Your task to perform on an android device: turn pop-ups on in chrome Image 0: 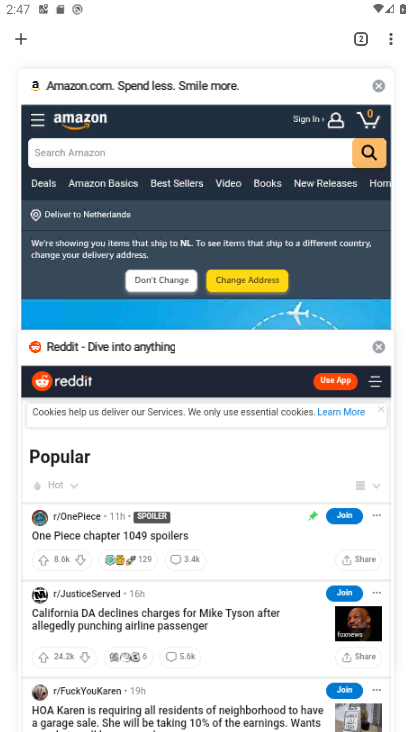
Step 0: press home button
Your task to perform on an android device: turn pop-ups on in chrome Image 1: 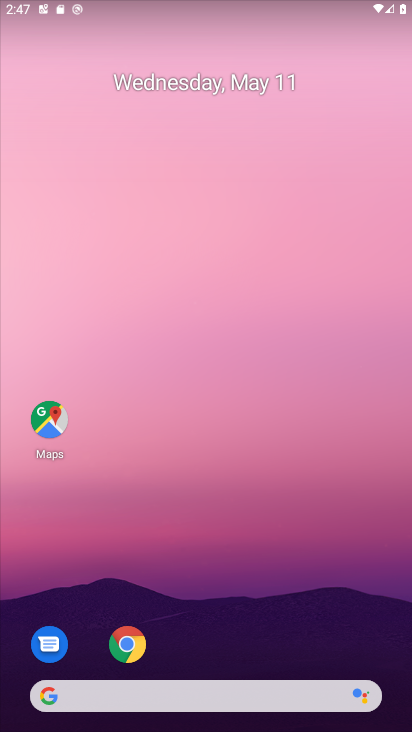
Step 1: click (130, 659)
Your task to perform on an android device: turn pop-ups on in chrome Image 2: 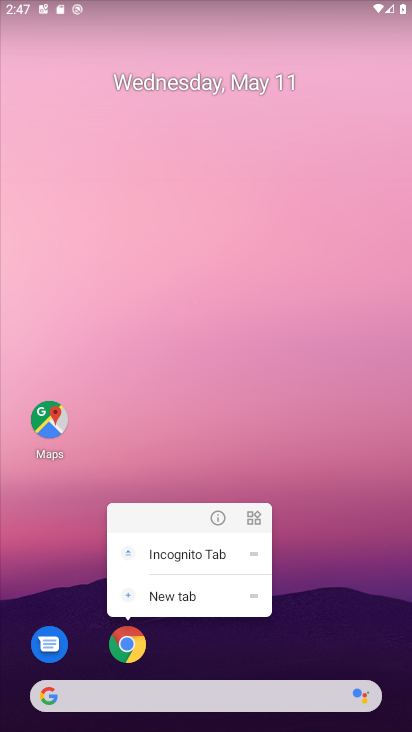
Step 2: click (118, 630)
Your task to perform on an android device: turn pop-ups on in chrome Image 3: 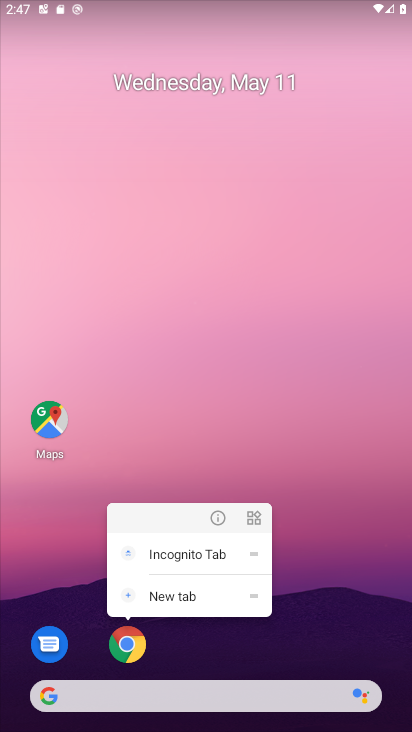
Step 3: click (125, 650)
Your task to perform on an android device: turn pop-ups on in chrome Image 4: 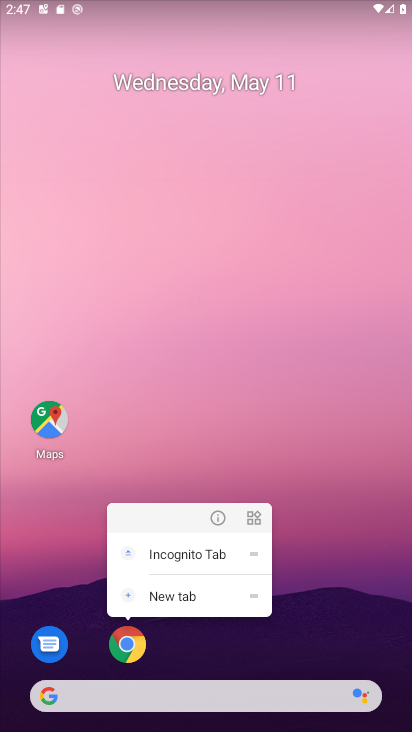
Step 4: click (133, 650)
Your task to perform on an android device: turn pop-ups on in chrome Image 5: 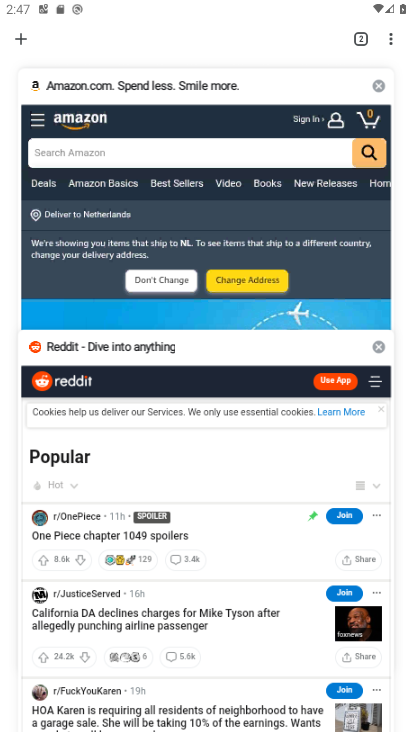
Step 5: drag from (391, 38) to (233, 145)
Your task to perform on an android device: turn pop-ups on in chrome Image 6: 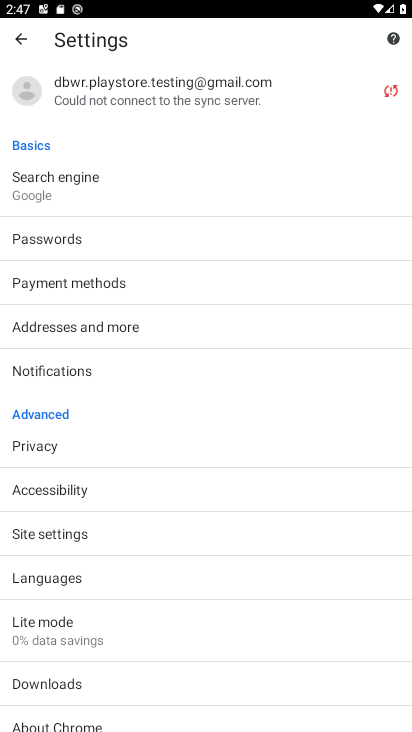
Step 6: click (36, 534)
Your task to perform on an android device: turn pop-ups on in chrome Image 7: 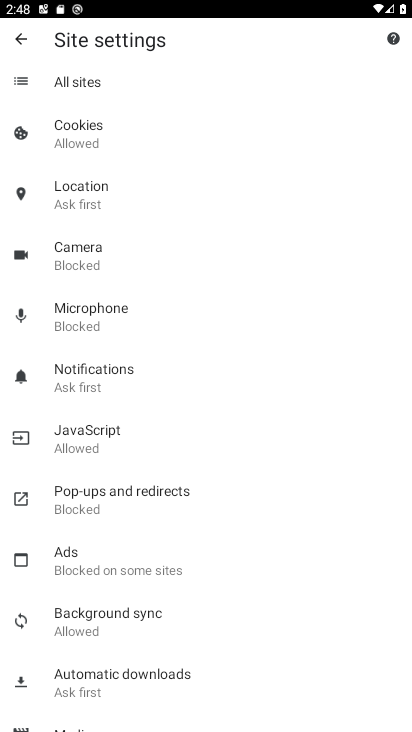
Step 7: click (84, 505)
Your task to perform on an android device: turn pop-ups on in chrome Image 8: 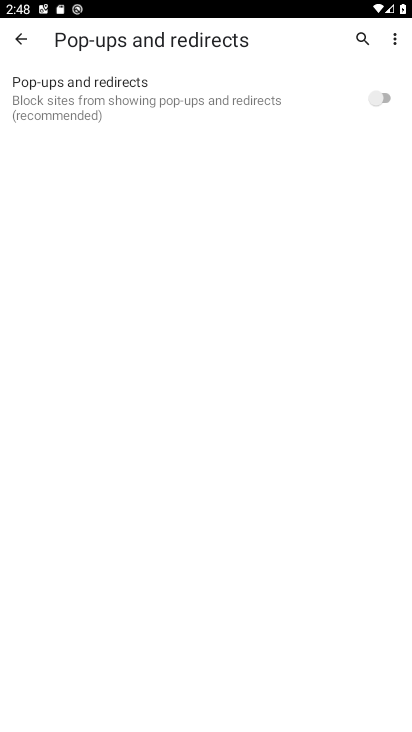
Step 8: click (383, 100)
Your task to perform on an android device: turn pop-ups on in chrome Image 9: 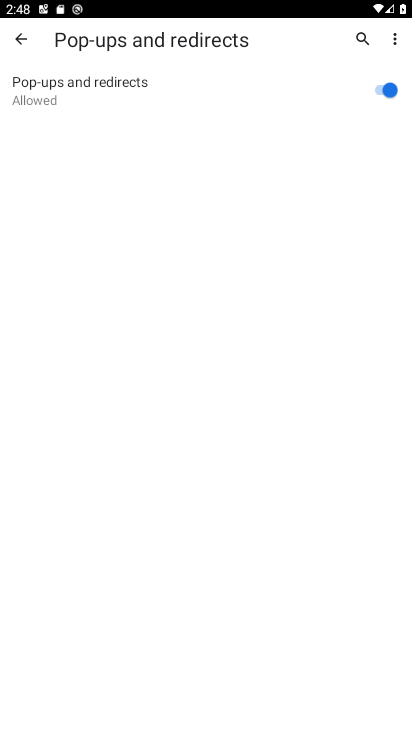
Step 9: task complete